Your task to perform on an android device: Open Android settings Image 0: 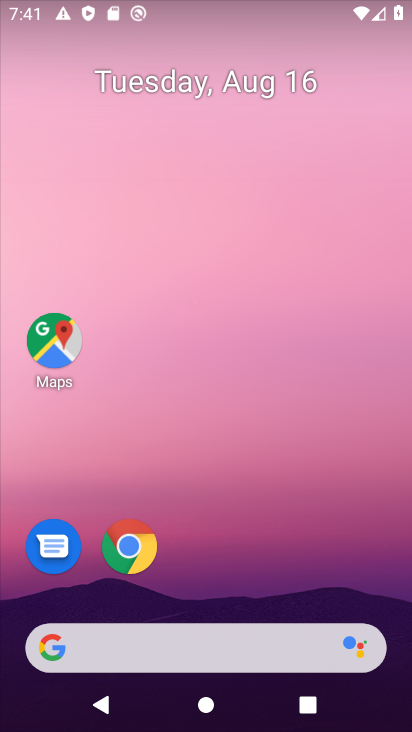
Step 0: drag from (232, 563) to (259, 3)
Your task to perform on an android device: Open Android settings Image 1: 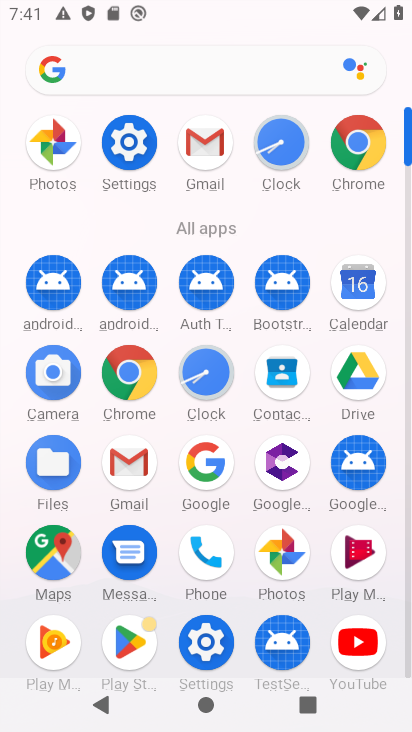
Step 1: click (132, 144)
Your task to perform on an android device: Open Android settings Image 2: 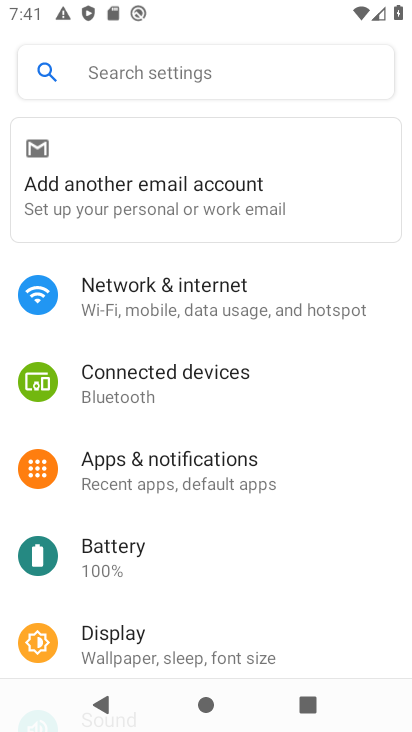
Step 2: drag from (243, 574) to (268, 3)
Your task to perform on an android device: Open Android settings Image 3: 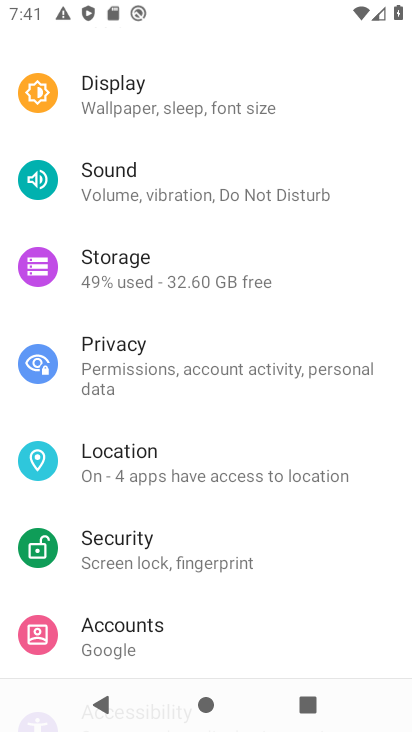
Step 3: drag from (255, 428) to (257, 36)
Your task to perform on an android device: Open Android settings Image 4: 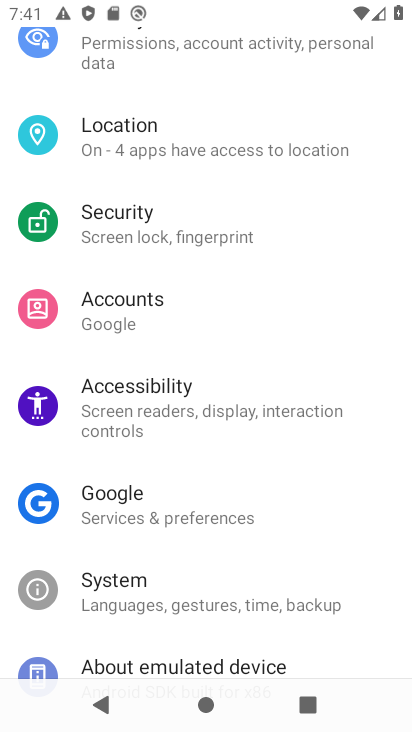
Step 4: drag from (179, 552) to (192, 310)
Your task to perform on an android device: Open Android settings Image 5: 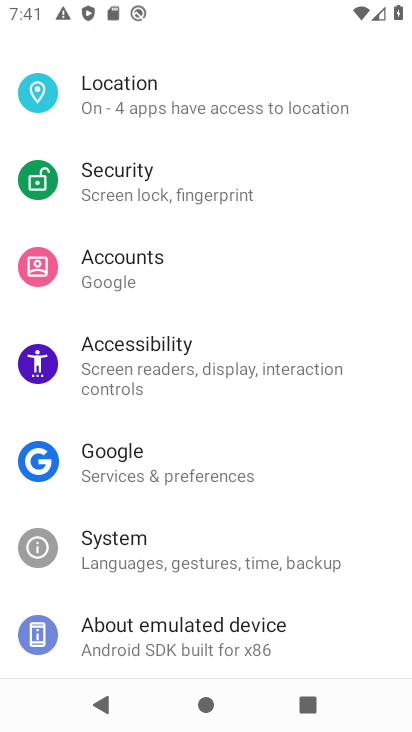
Step 5: click (177, 631)
Your task to perform on an android device: Open Android settings Image 6: 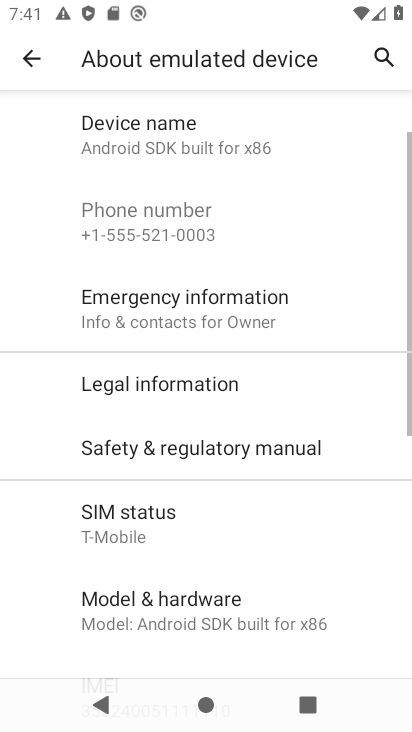
Step 6: task complete